Your task to perform on an android device: When is my next meeting? Image 0: 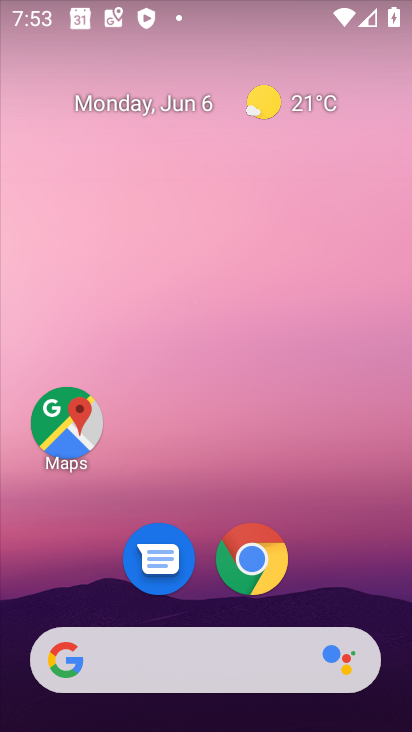
Step 0: drag from (208, 721) to (219, 109)
Your task to perform on an android device: When is my next meeting? Image 1: 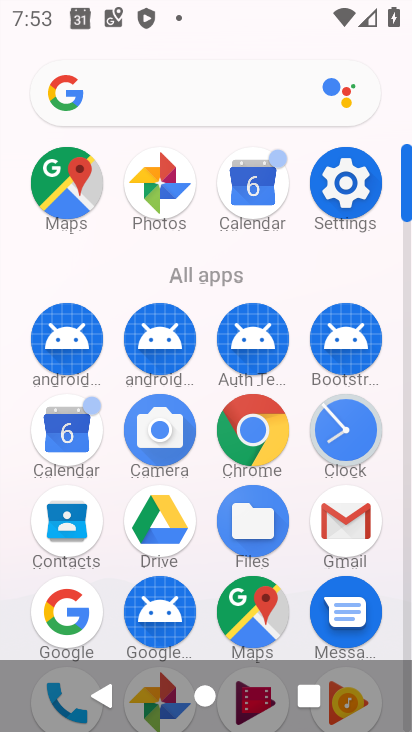
Step 1: drag from (290, 596) to (300, 230)
Your task to perform on an android device: When is my next meeting? Image 2: 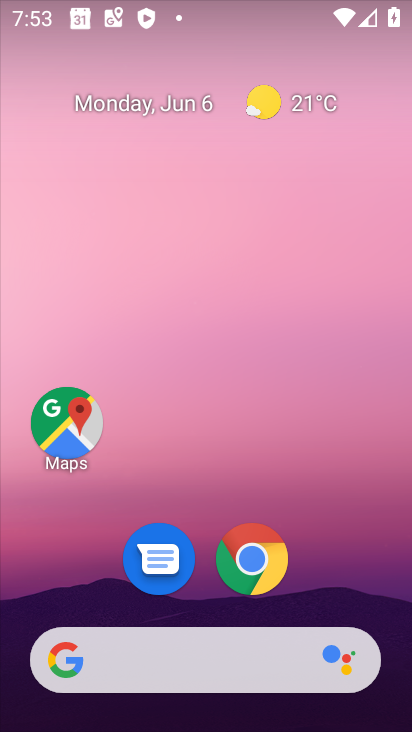
Step 2: drag from (209, 727) to (221, 153)
Your task to perform on an android device: When is my next meeting? Image 3: 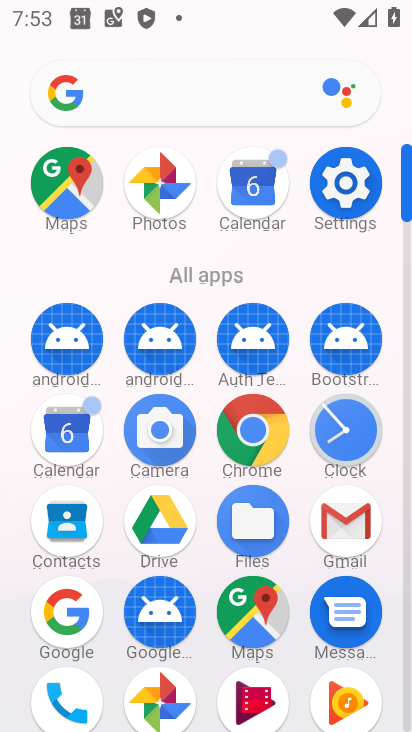
Step 3: drag from (291, 629) to (298, 319)
Your task to perform on an android device: When is my next meeting? Image 4: 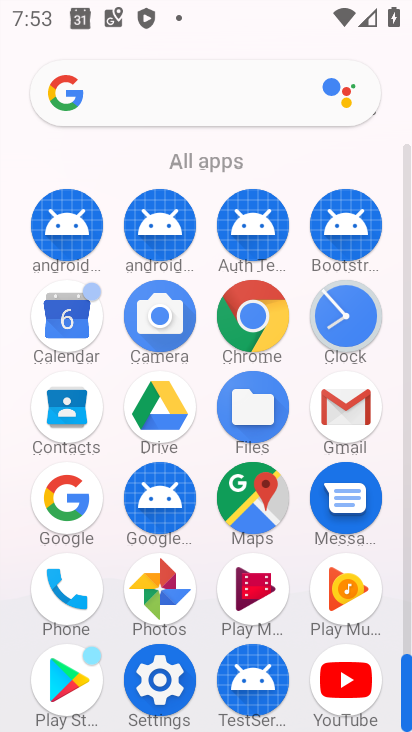
Step 4: click (65, 329)
Your task to perform on an android device: When is my next meeting? Image 5: 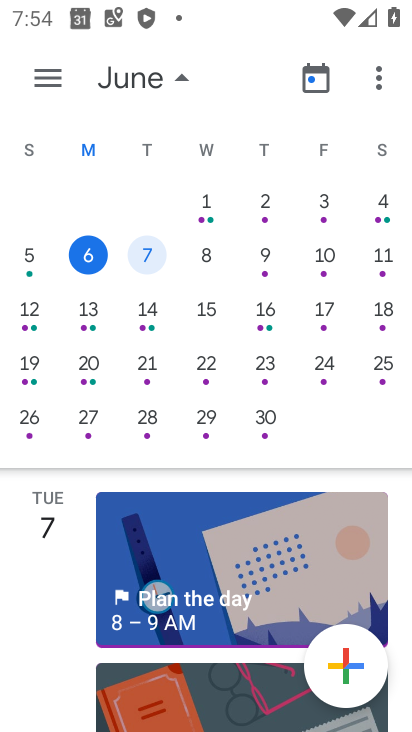
Step 5: click (149, 251)
Your task to perform on an android device: When is my next meeting? Image 6: 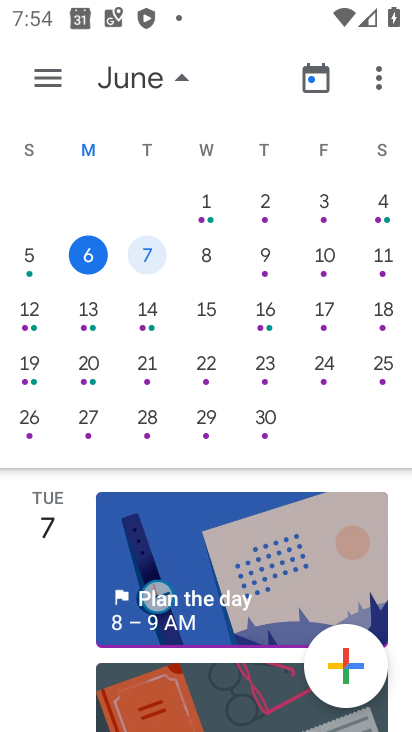
Step 6: click (149, 251)
Your task to perform on an android device: When is my next meeting? Image 7: 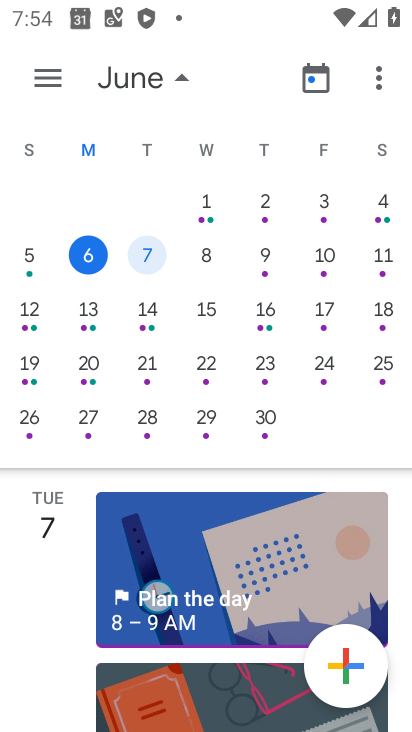
Step 7: click (149, 251)
Your task to perform on an android device: When is my next meeting? Image 8: 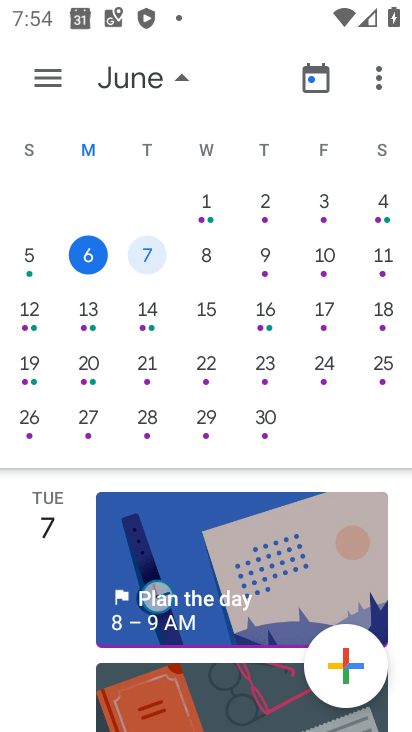
Step 8: click (182, 73)
Your task to perform on an android device: When is my next meeting? Image 9: 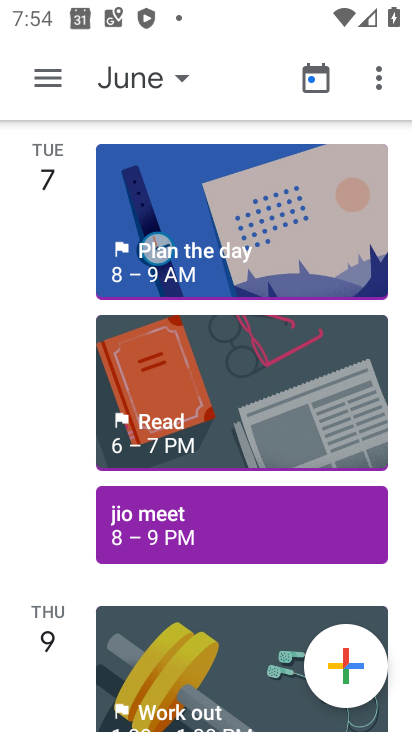
Step 9: task complete